Your task to perform on an android device: change text size in settings app Image 0: 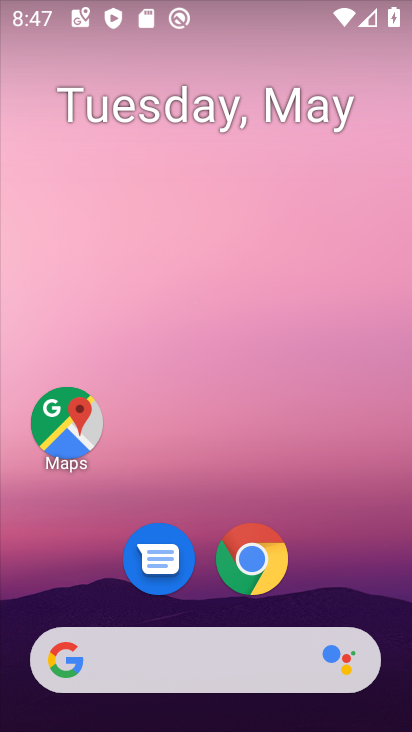
Step 0: drag from (178, 642) to (180, 131)
Your task to perform on an android device: change text size in settings app Image 1: 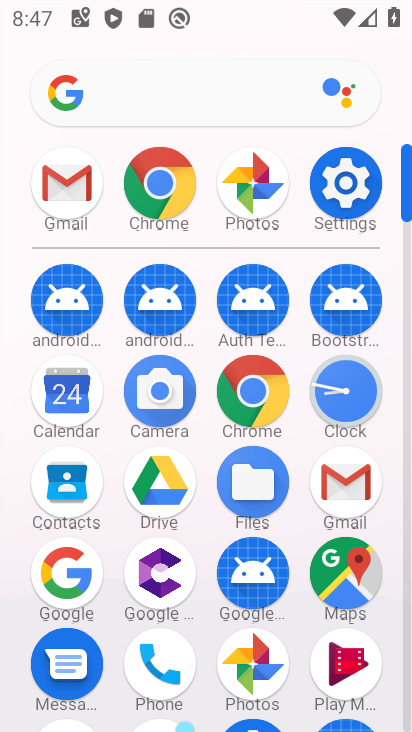
Step 1: click (325, 191)
Your task to perform on an android device: change text size in settings app Image 2: 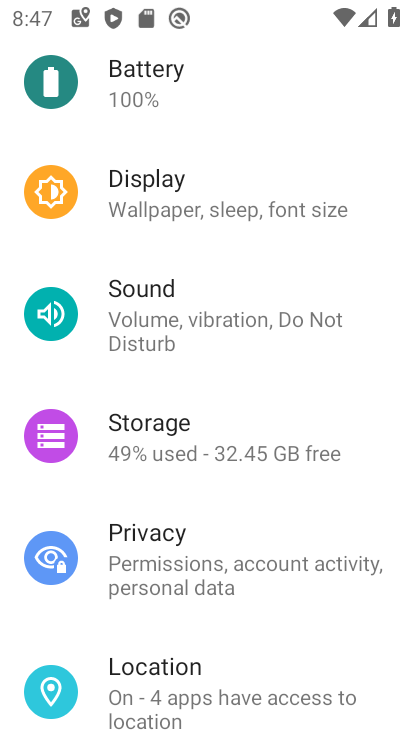
Step 2: click (151, 202)
Your task to perform on an android device: change text size in settings app Image 3: 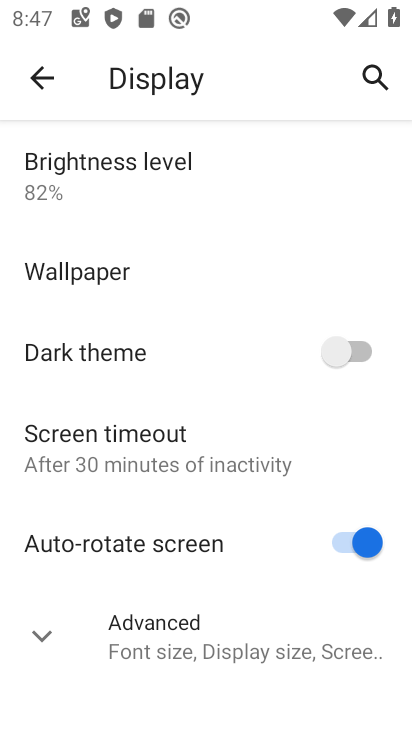
Step 3: click (183, 662)
Your task to perform on an android device: change text size in settings app Image 4: 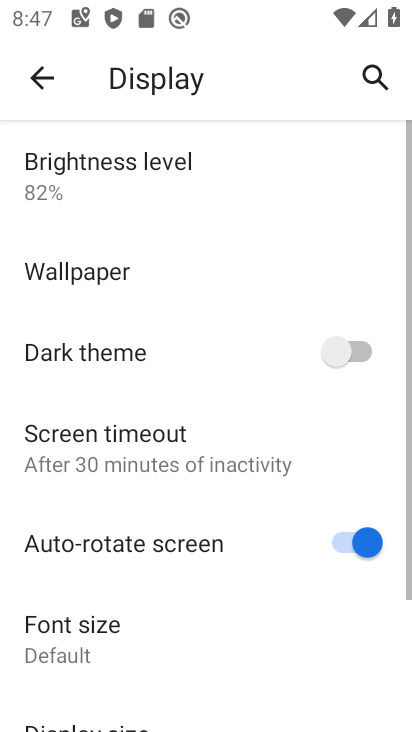
Step 4: drag from (168, 653) to (167, 471)
Your task to perform on an android device: change text size in settings app Image 5: 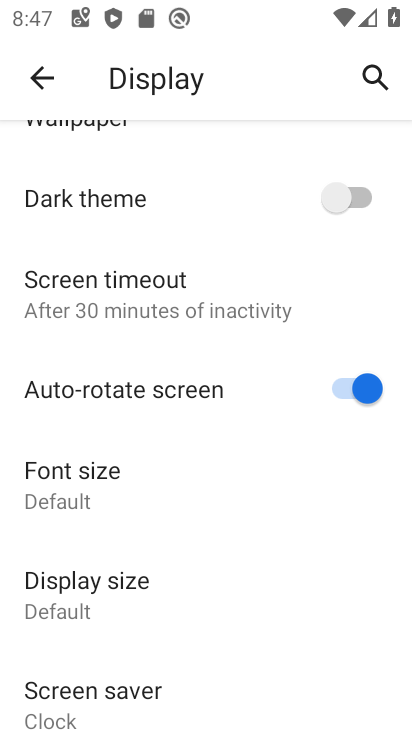
Step 5: click (117, 479)
Your task to perform on an android device: change text size in settings app Image 6: 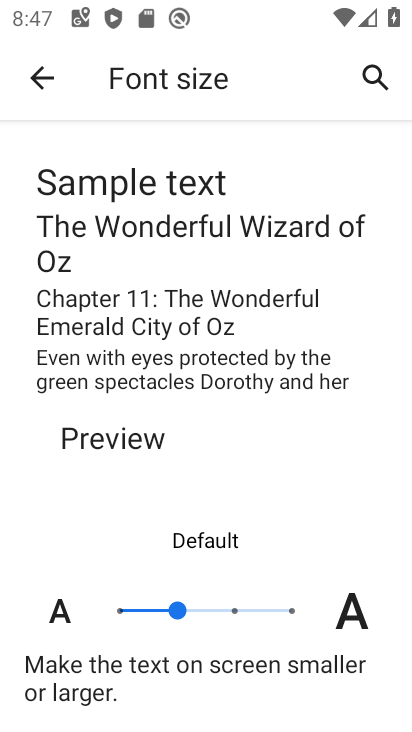
Step 6: click (122, 616)
Your task to perform on an android device: change text size in settings app Image 7: 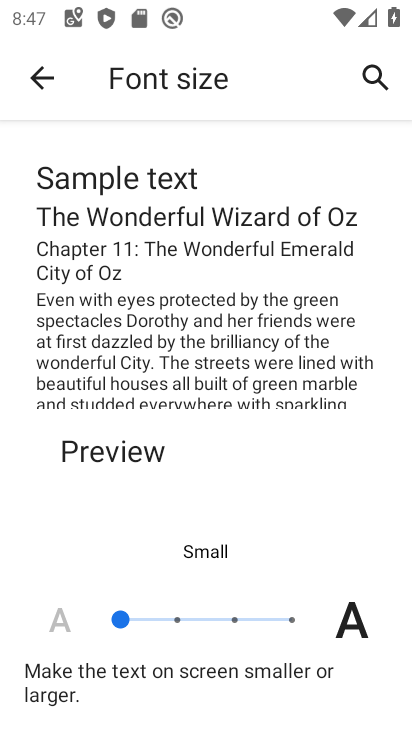
Step 7: task complete